Your task to perform on an android device: Play the last video I watched on Youtube Image 0: 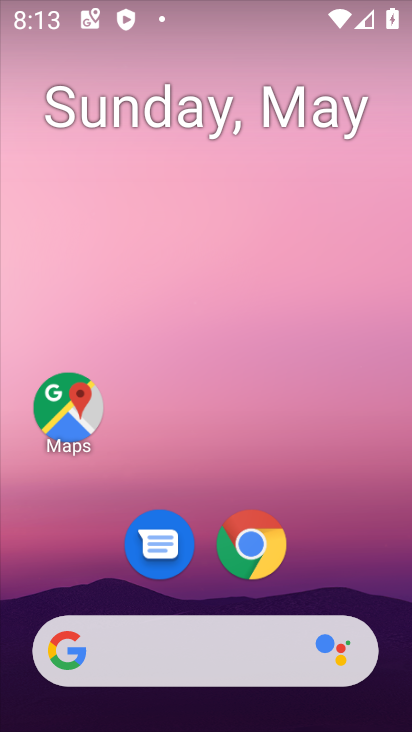
Step 0: drag from (314, 560) to (235, 58)
Your task to perform on an android device: Play the last video I watched on Youtube Image 1: 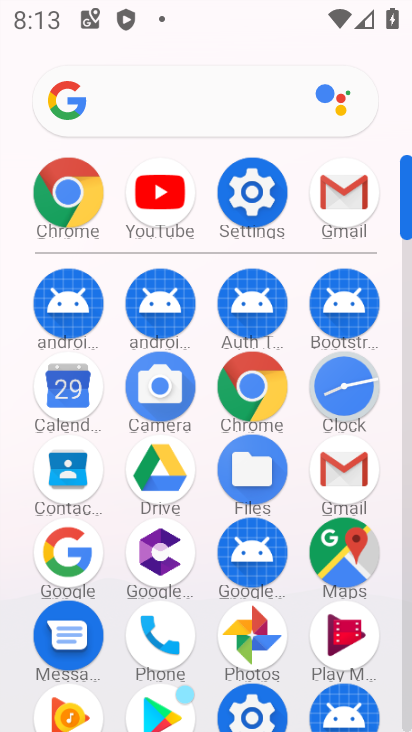
Step 1: drag from (12, 589) to (9, 245)
Your task to perform on an android device: Play the last video I watched on Youtube Image 2: 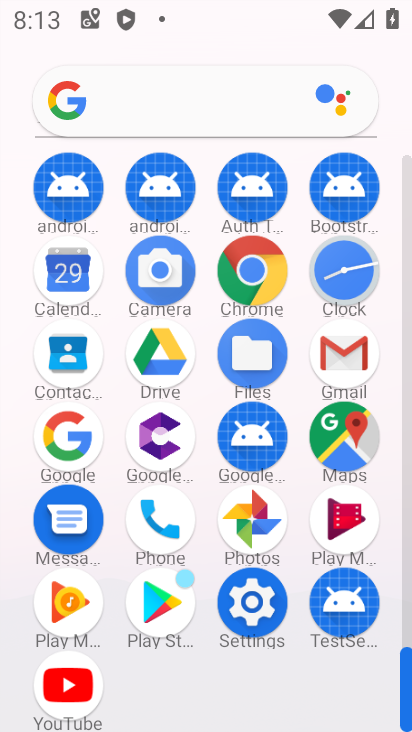
Step 2: click (71, 683)
Your task to perform on an android device: Play the last video I watched on Youtube Image 3: 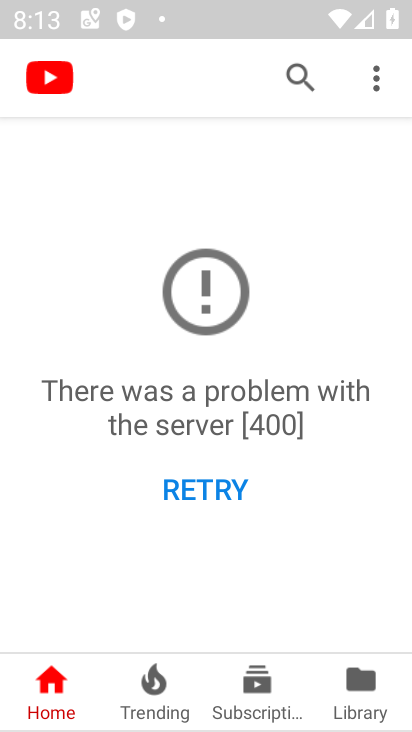
Step 3: click (62, 677)
Your task to perform on an android device: Play the last video I watched on Youtube Image 4: 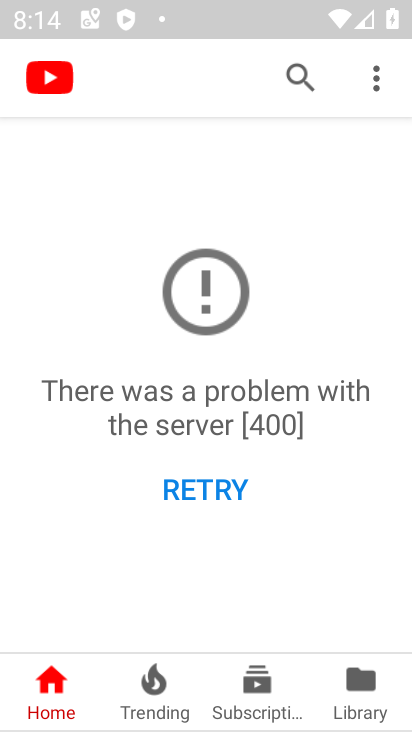
Step 4: click (361, 665)
Your task to perform on an android device: Play the last video I watched on Youtube Image 5: 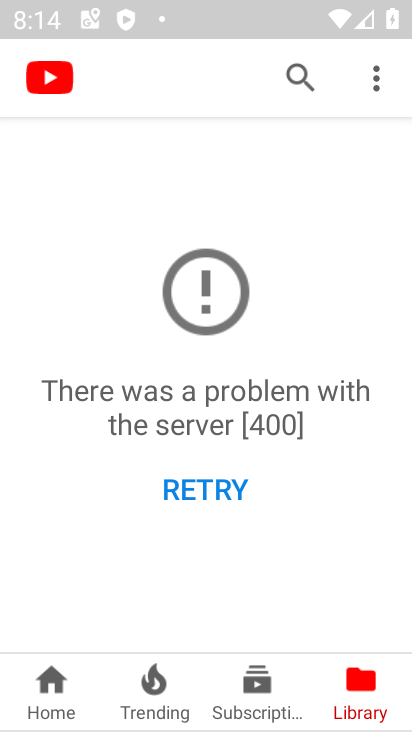
Step 5: task complete